Your task to perform on an android device: set the stopwatch Image 0: 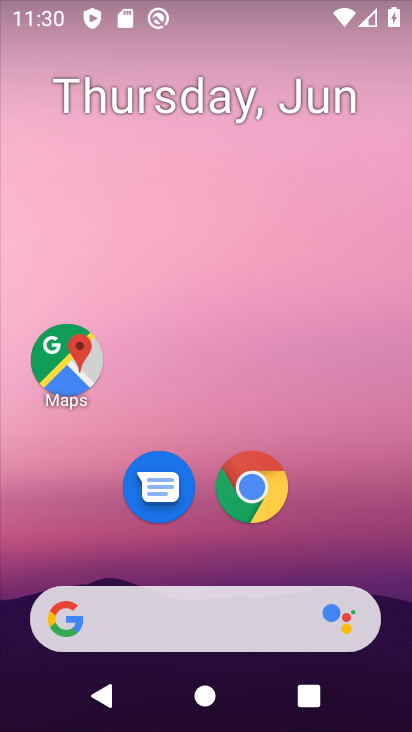
Step 0: drag from (77, 570) to (239, 21)
Your task to perform on an android device: set the stopwatch Image 1: 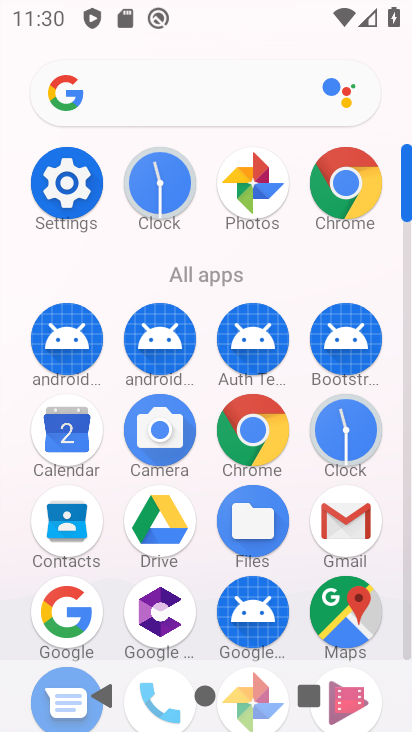
Step 1: click (348, 431)
Your task to perform on an android device: set the stopwatch Image 2: 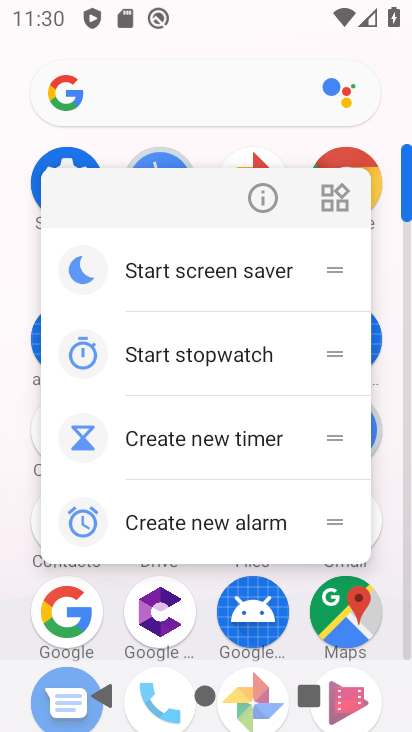
Step 2: press back button
Your task to perform on an android device: set the stopwatch Image 3: 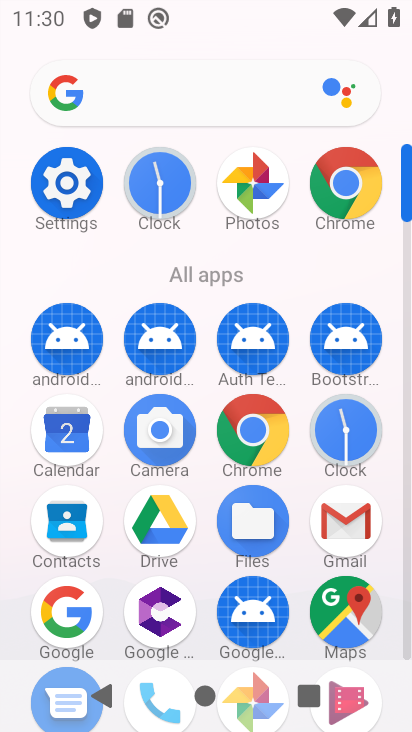
Step 3: click (345, 432)
Your task to perform on an android device: set the stopwatch Image 4: 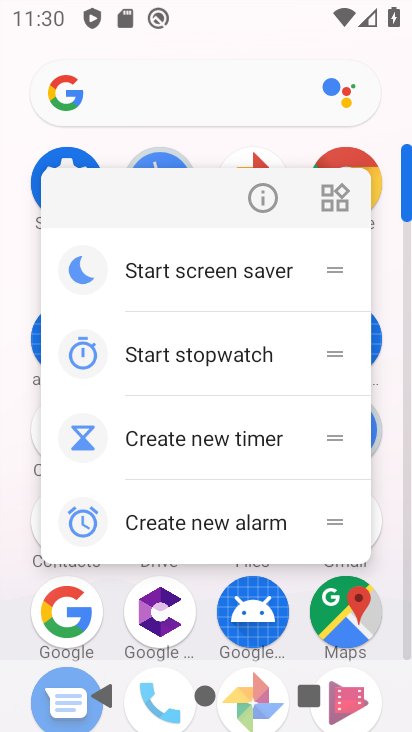
Step 4: press back button
Your task to perform on an android device: set the stopwatch Image 5: 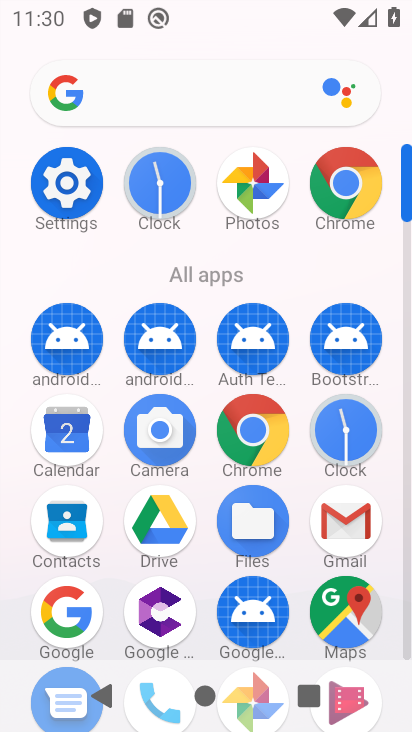
Step 5: click (382, 427)
Your task to perform on an android device: set the stopwatch Image 6: 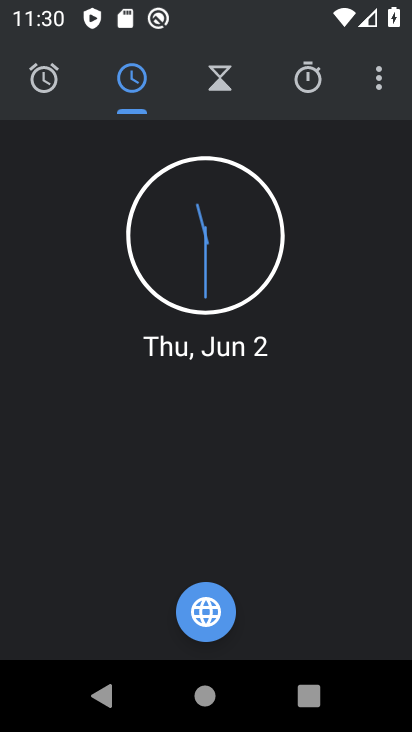
Step 6: click (330, 89)
Your task to perform on an android device: set the stopwatch Image 7: 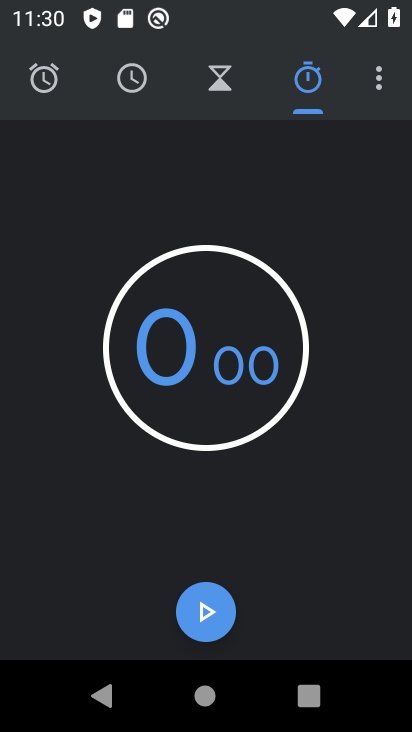
Step 7: click (220, 616)
Your task to perform on an android device: set the stopwatch Image 8: 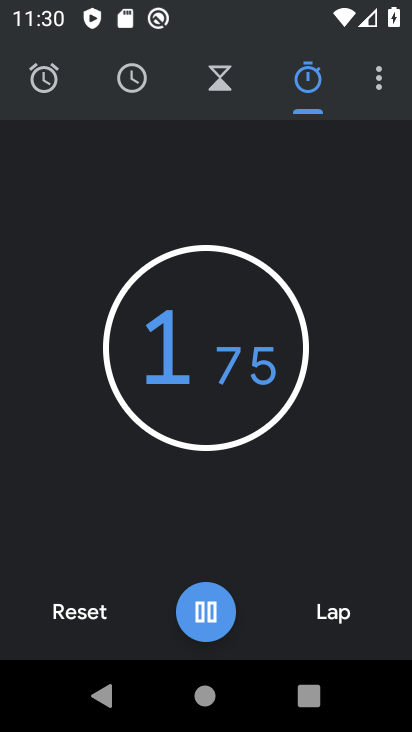
Step 8: task complete